Your task to perform on an android device: open app "DoorDash - Food Delivery" Image 0: 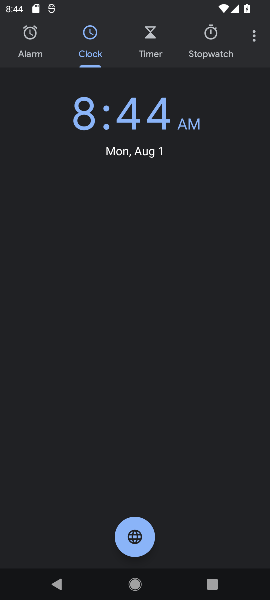
Step 0: press home button
Your task to perform on an android device: open app "DoorDash - Food Delivery" Image 1: 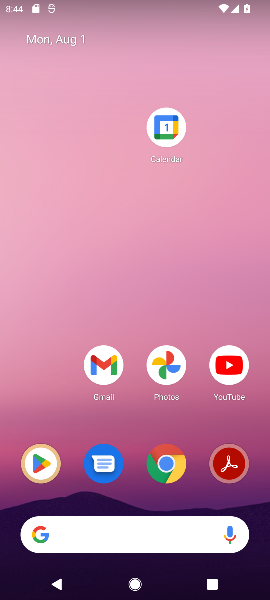
Step 1: drag from (134, 493) to (144, 63)
Your task to perform on an android device: open app "DoorDash - Food Delivery" Image 2: 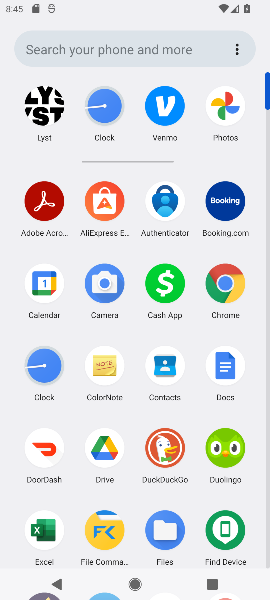
Step 2: click (39, 462)
Your task to perform on an android device: open app "DoorDash - Food Delivery" Image 3: 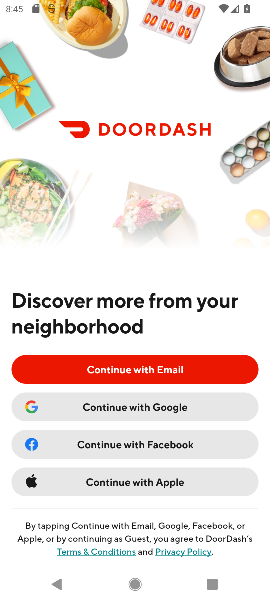
Step 3: task complete